Your task to perform on an android device: What's on my calendar today? Image 0: 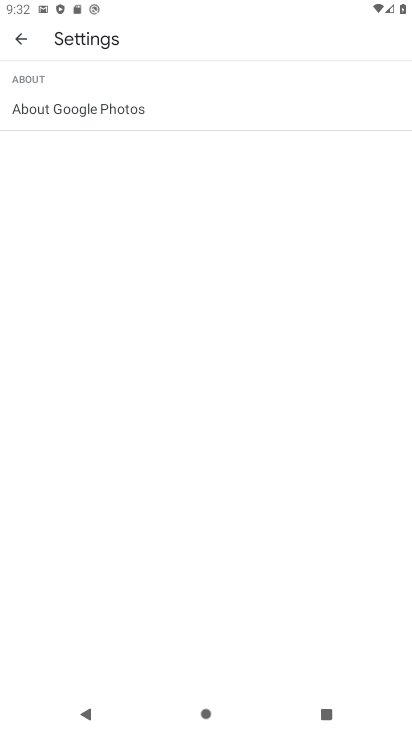
Step 0: press home button
Your task to perform on an android device: What's on my calendar today? Image 1: 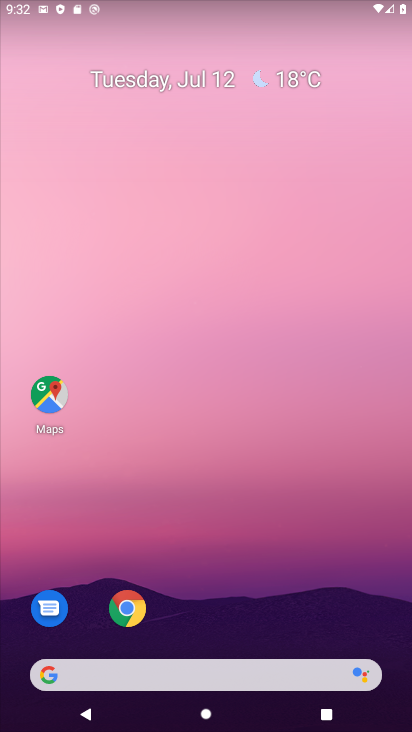
Step 1: drag from (229, 569) to (201, 83)
Your task to perform on an android device: What's on my calendar today? Image 2: 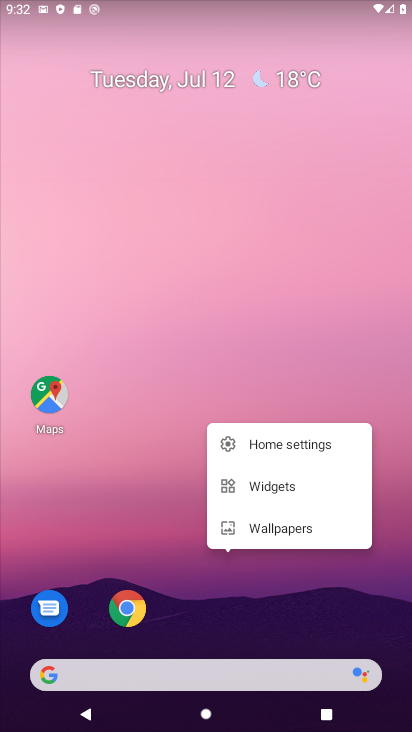
Step 2: click (201, 269)
Your task to perform on an android device: What's on my calendar today? Image 3: 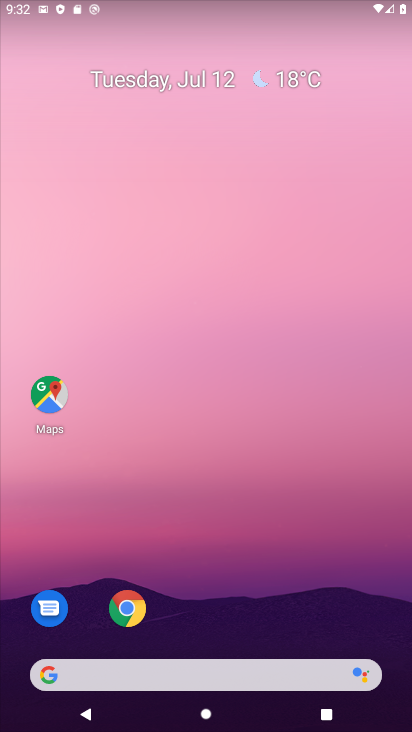
Step 3: drag from (228, 569) to (165, 36)
Your task to perform on an android device: What's on my calendar today? Image 4: 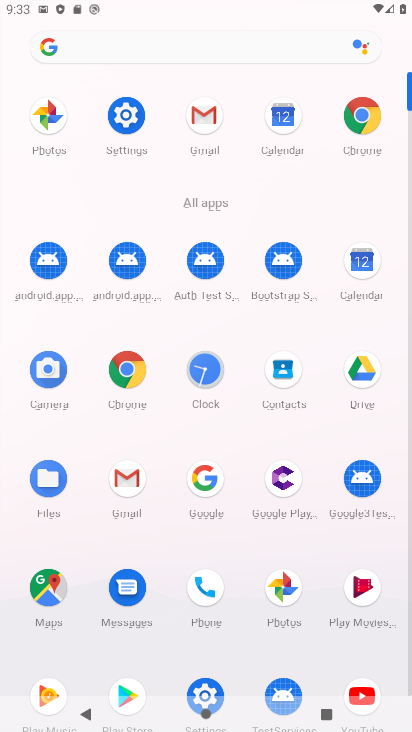
Step 4: click (359, 260)
Your task to perform on an android device: What's on my calendar today? Image 5: 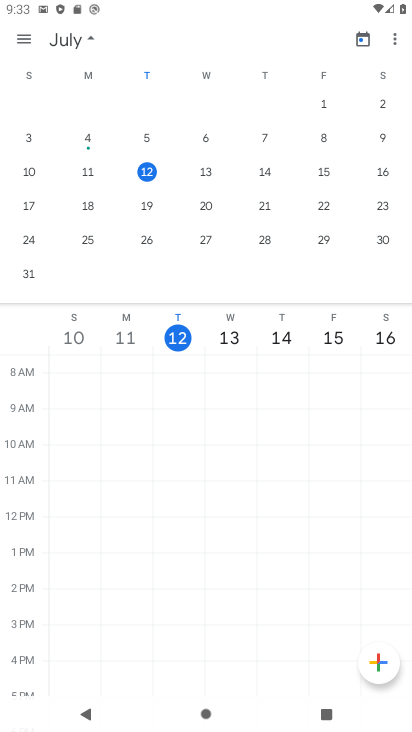
Step 5: click (152, 170)
Your task to perform on an android device: What's on my calendar today? Image 6: 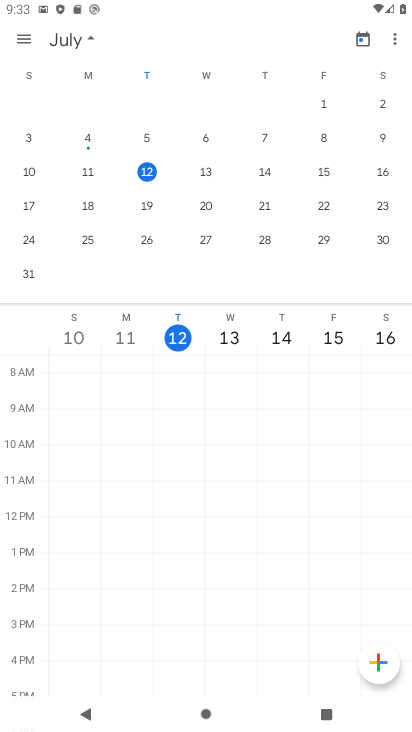
Step 6: click (188, 337)
Your task to perform on an android device: What's on my calendar today? Image 7: 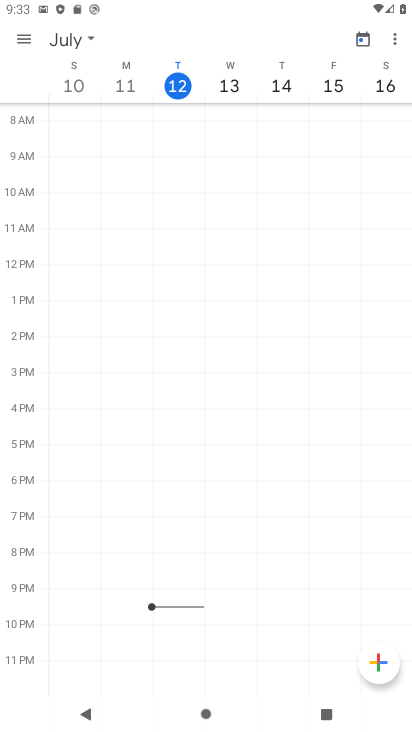
Step 7: click (178, 90)
Your task to perform on an android device: What's on my calendar today? Image 8: 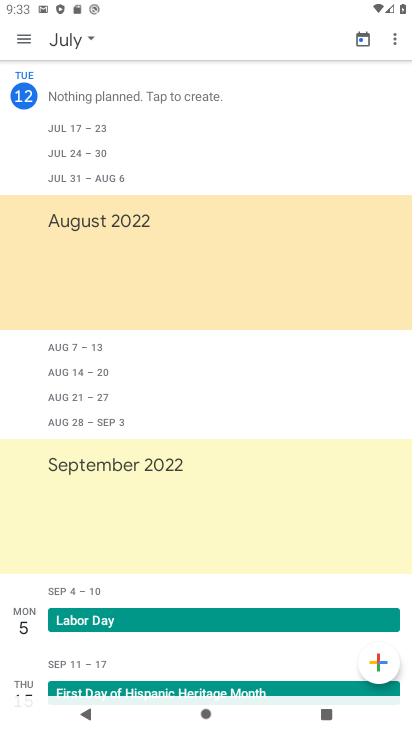
Step 8: task complete